Your task to perform on an android device: Toggle the flashlight Image 0: 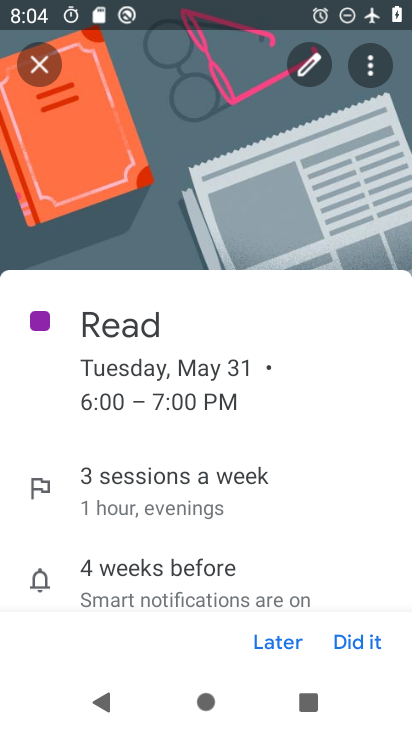
Step 0: press home button
Your task to perform on an android device: Toggle the flashlight Image 1: 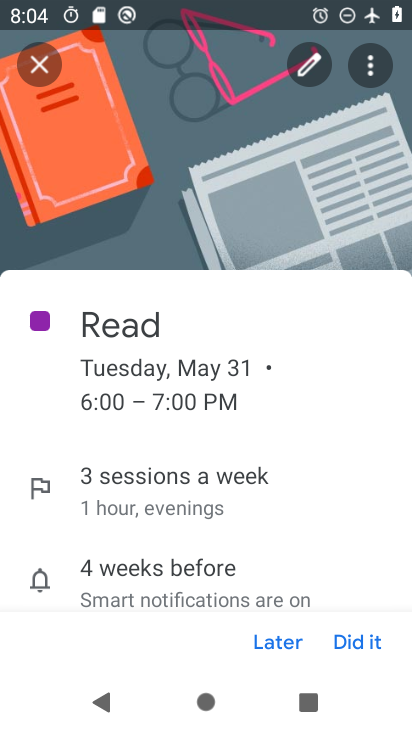
Step 1: drag from (306, 672) to (245, 2)
Your task to perform on an android device: Toggle the flashlight Image 2: 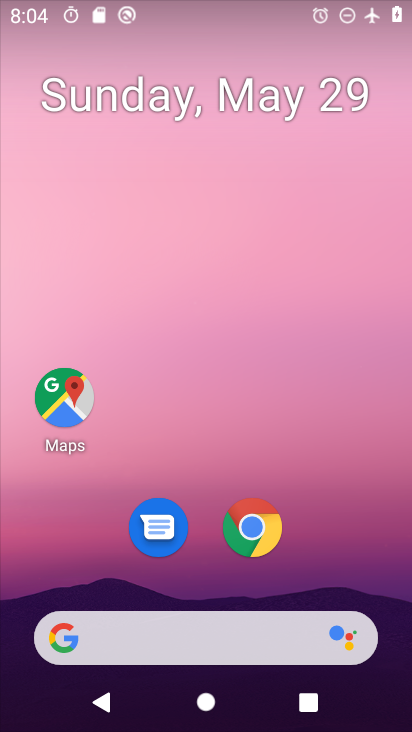
Step 2: drag from (399, 603) to (326, 52)
Your task to perform on an android device: Toggle the flashlight Image 3: 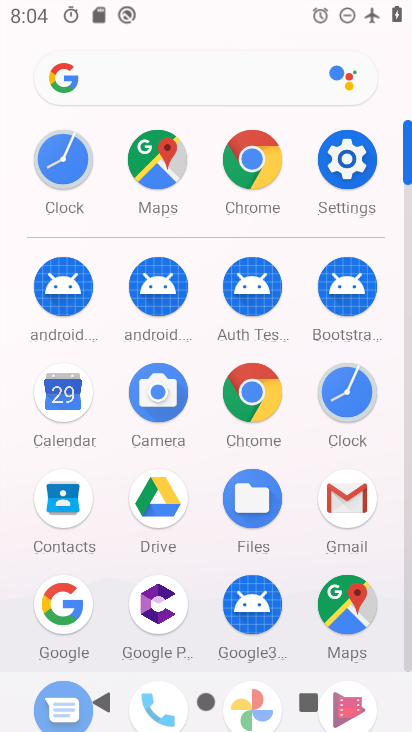
Step 3: click (328, 169)
Your task to perform on an android device: Toggle the flashlight Image 4: 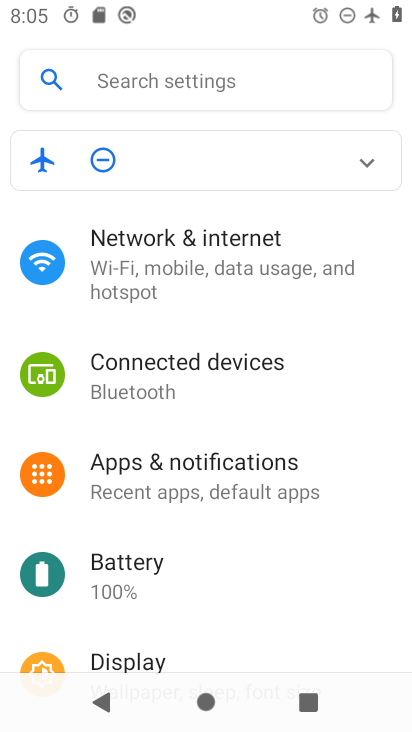
Step 4: task complete